Your task to perform on an android device: toggle show notifications on the lock screen Image 0: 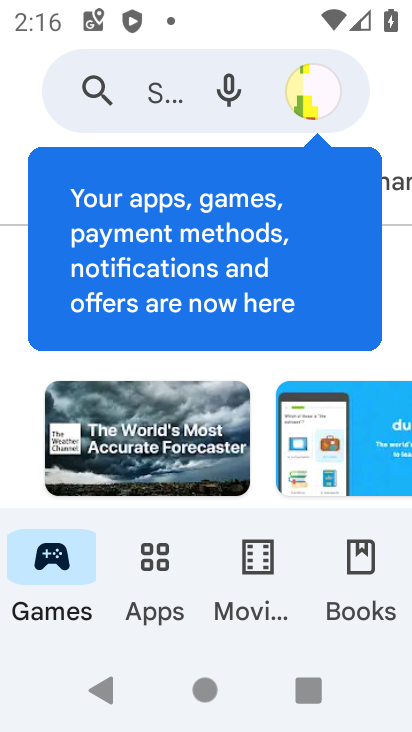
Step 0: press home button
Your task to perform on an android device: toggle show notifications on the lock screen Image 1: 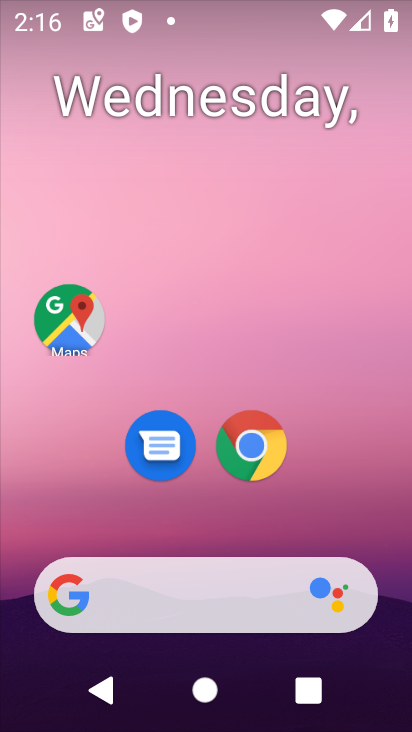
Step 1: drag from (214, 530) to (230, 209)
Your task to perform on an android device: toggle show notifications on the lock screen Image 2: 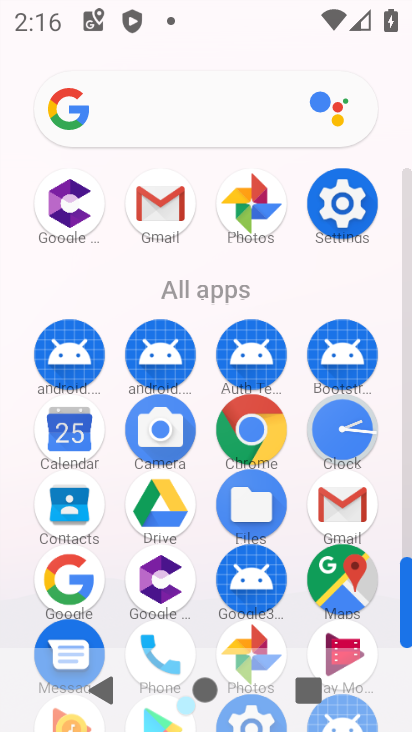
Step 2: click (345, 199)
Your task to perform on an android device: toggle show notifications on the lock screen Image 3: 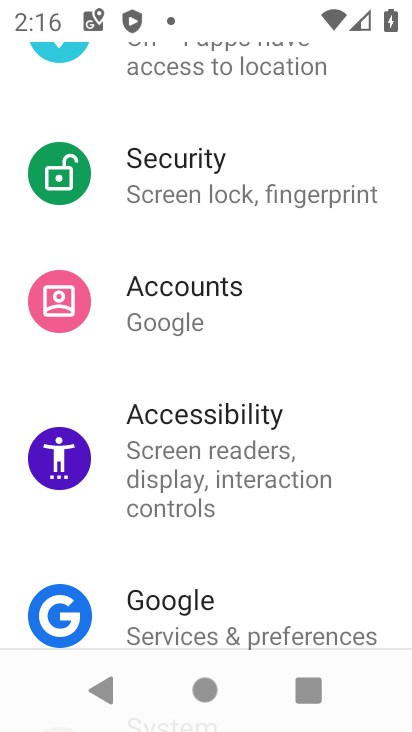
Step 3: drag from (250, 290) to (248, 526)
Your task to perform on an android device: toggle show notifications on the lock screen Image 4: 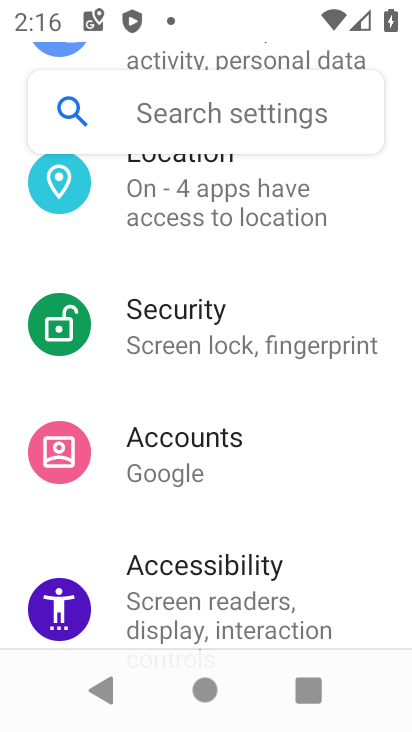
Step 4: drag from (230, 167) to (245, 426)
Your task to perform on an android device: toggle show notifications on the lock screen Image 5: 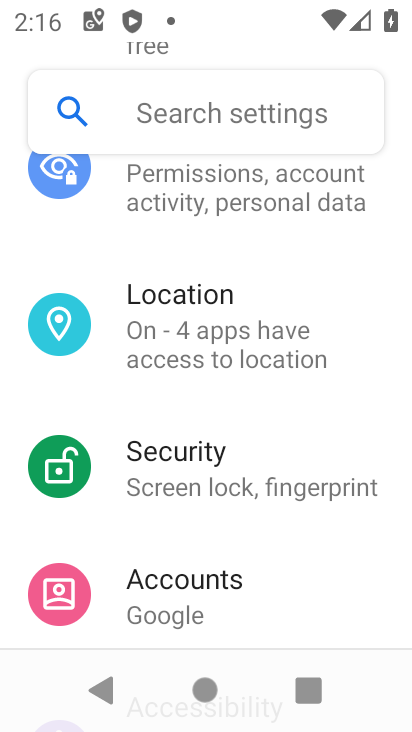
Step 5: drag from (228, 279) to (228, 409)
Your task to perform on an android device: toggle show notifications on the lock screen Image 6: 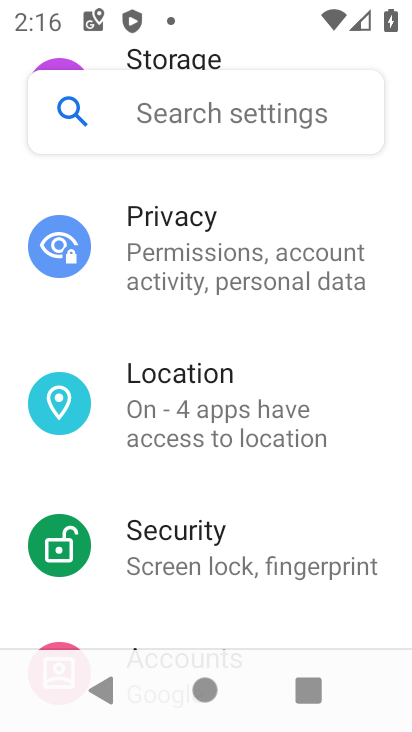
Step 6: drag from (220, 246) to (223, 480)
Your task to perform on an android device: toggle show notifications on the lock screen Image 7: 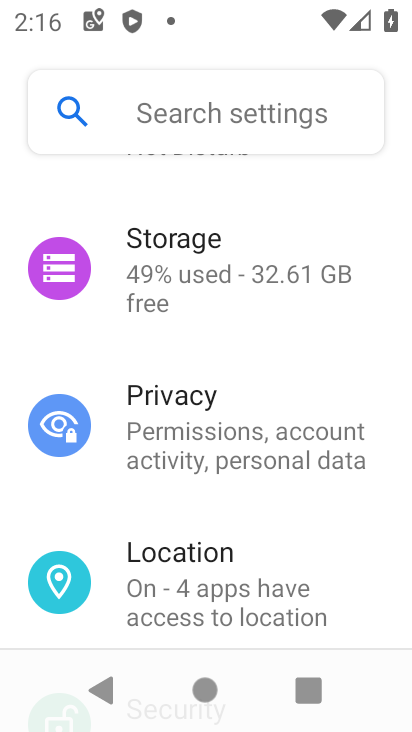
Step 7: drag from (210, 276) to (225, 454)
Your task to perform on an android device: toggle show notifications on the lock screen Image 8: 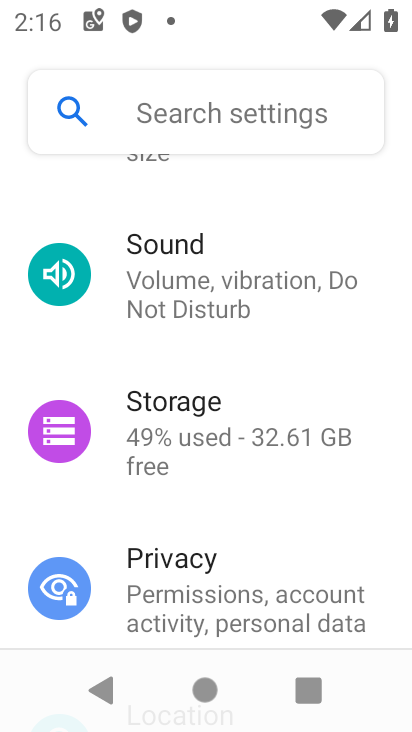
Step 8: drag from (211, 206) to (221, 414)
Your task to perform on an android device: toggle show notifications on the lock screen Image 9: 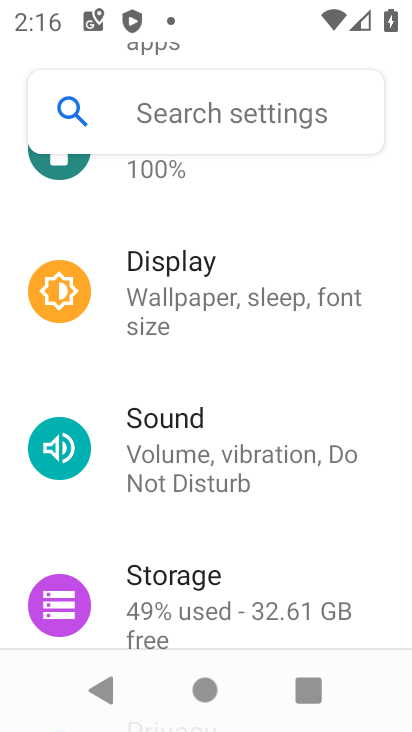
Step 9: drag from (223, 242) to (254, 460)
Your task to perform on an android device: toggle show notifications on the lock screen Image 10: 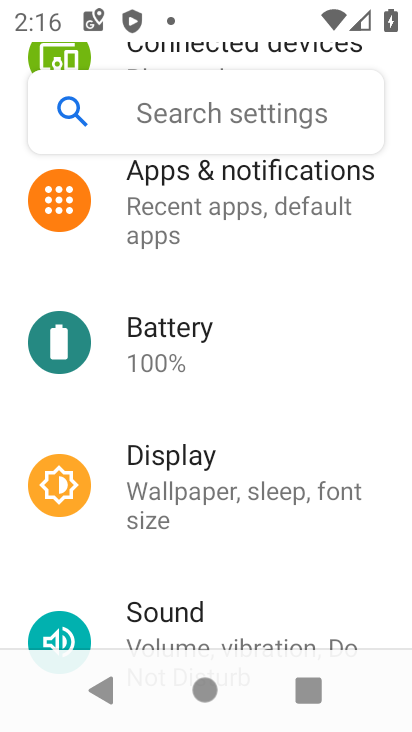
Step 10: click (240, 229)
Your task to perform on an android device: toggle show notifications on the lock screen Image 11: 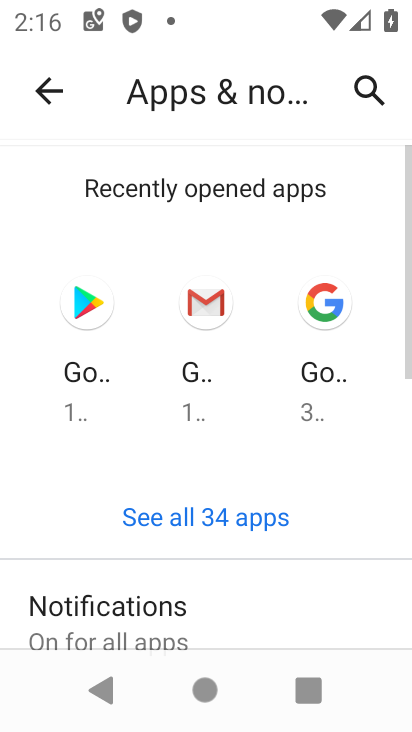
Step 11: click (198, 600)
Your task to perform on an android device: toggle show notifications on the lock screen Image 12: 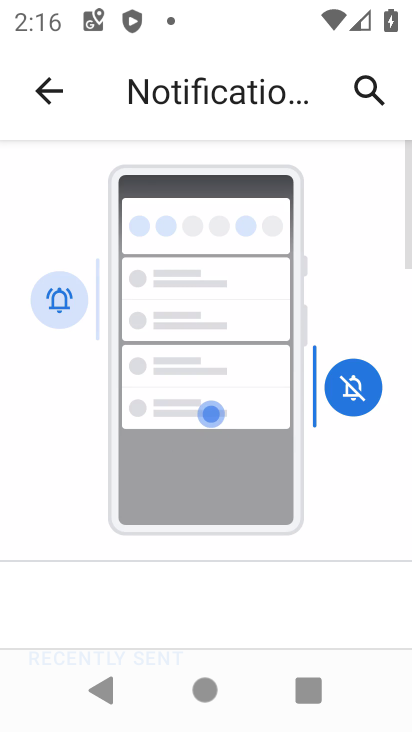
Step 12: drag from (214, 562) to (270, 306)
Your task to perform on an android device: toggle show notifications on the lock screen Image 13: 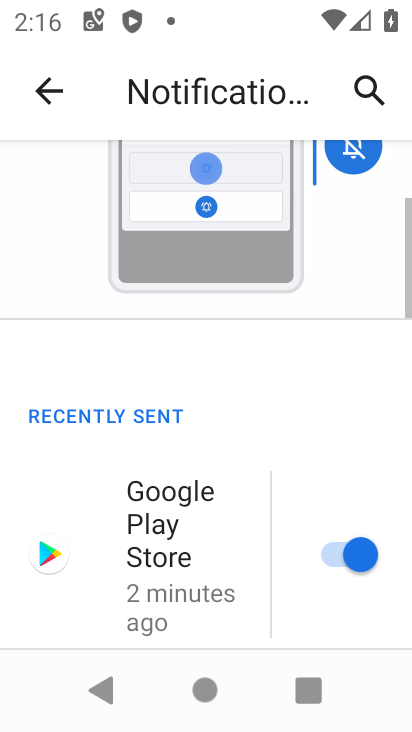
Step 13: drag from (270, 473) to (290, 303)
Your task to perform on an android device: toggle show notifications on the lock screen Image 14: 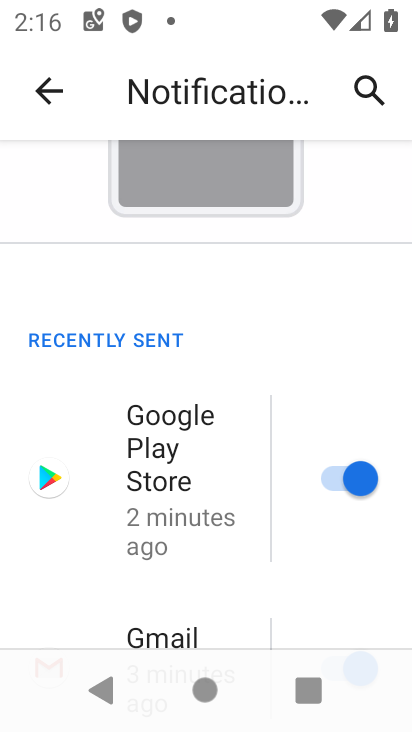
Step 14: drag from (221, 563) to (282, 244)
Your task to perform on an android device: toggle show notifications on the lock screen Image 15: 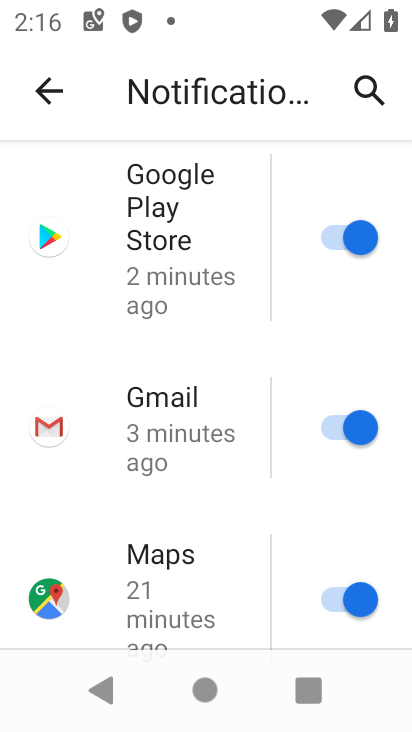
Step 15: drag from (210, 560) to (271, 275)
Your task to perform on an android device: toggle show notifications on the lock screen Image 16: 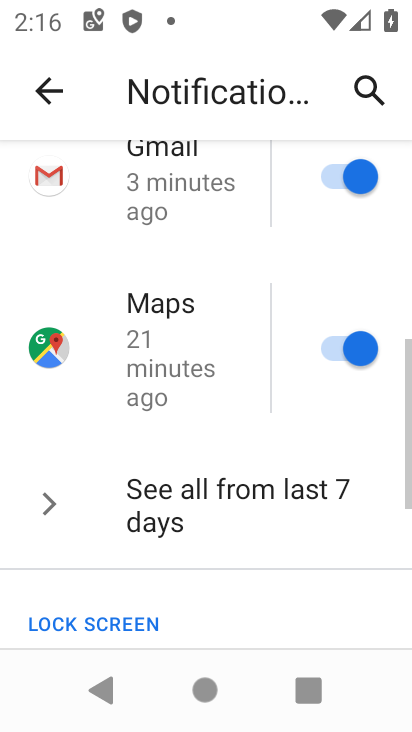
Step 16: drag from (247, 562) to (286, 255)
Your task to perform on an android device: toggle show notifications on the lock screen Image 17: 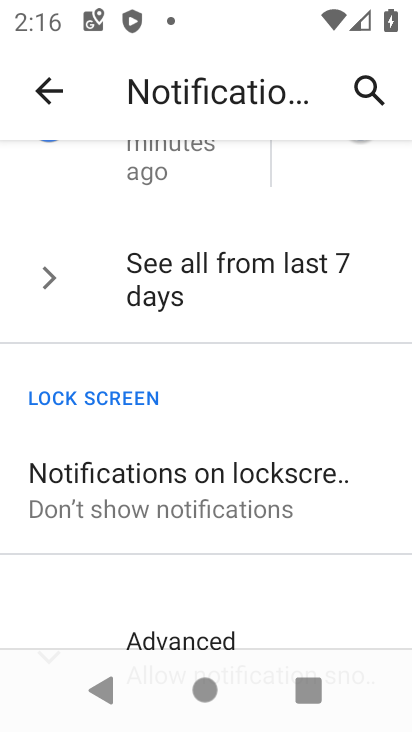
Step 17: click (236, 481)
Your task to perform on an android device: toggle show notifications on the lock screen Image 18: 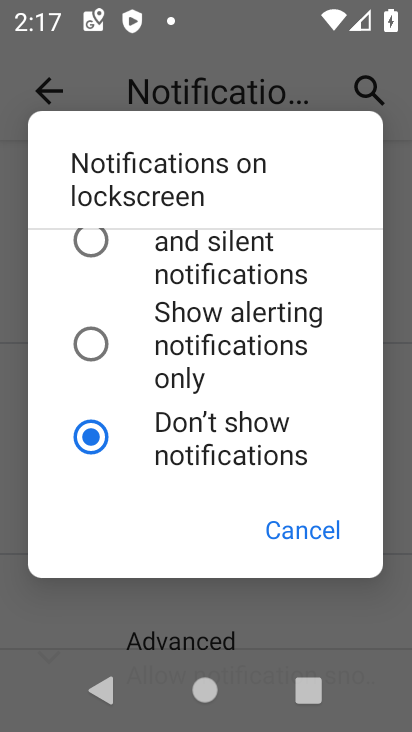
Step 18: click (100, 240)
Your task to perform on an android device: toggle show notifications on the lock screen Image 19: 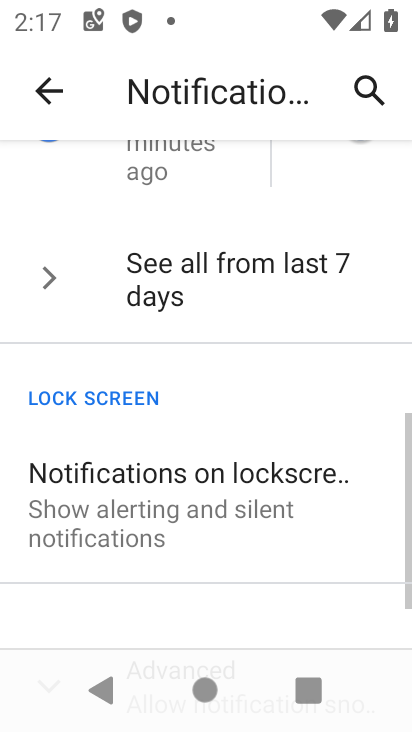
Step 19: task complete